Your task to perform on an android device: toggle wifi Image 0: 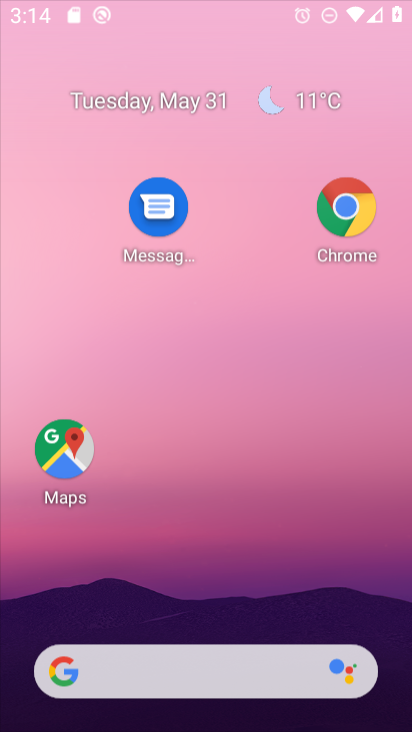
Step 0: click (234, 32)
Your task to perform on an android device: toggle wifi Image 1: 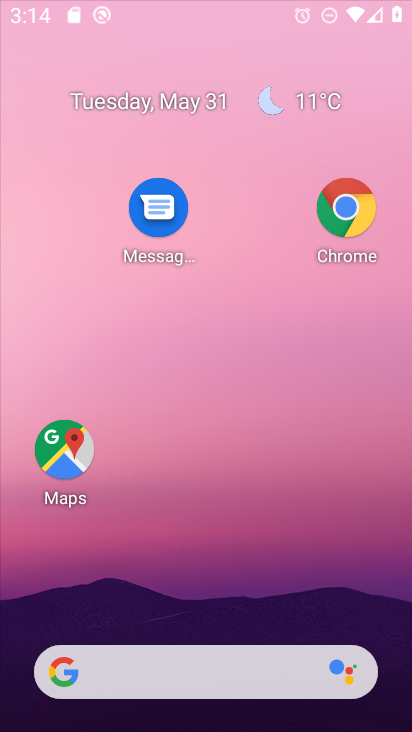
Step 1: drag from (174, 567) to (198, 44)
Your task to perform on an android device: toggle wifi Image 2: 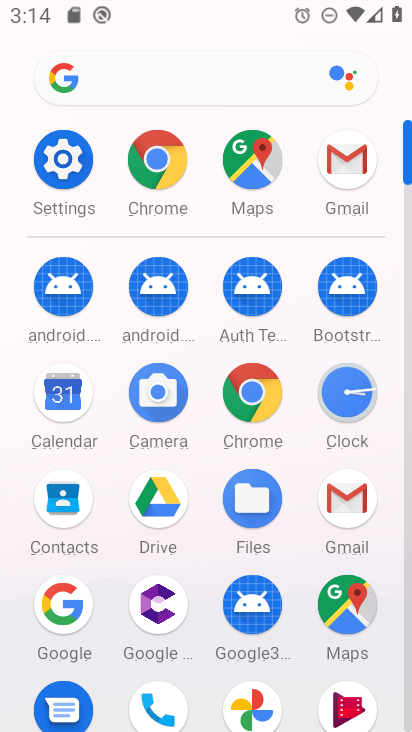
Step 2: click (69, 160)
Your task to perform on an android device: toggle wifi Image 3: 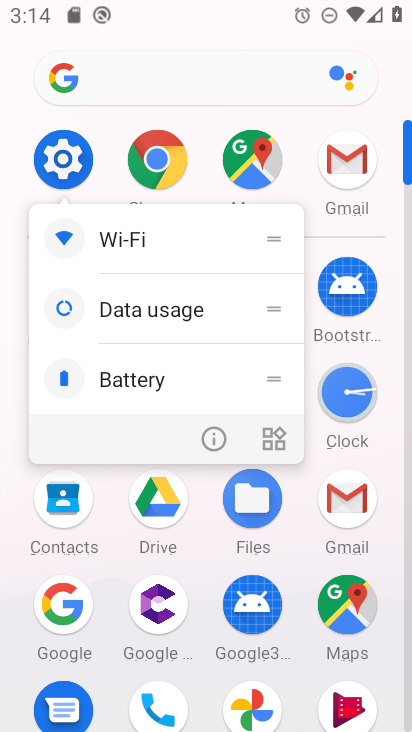
Step 3: click (224, 433)
Your task to perform on an android device: toggle wifi Image 4: 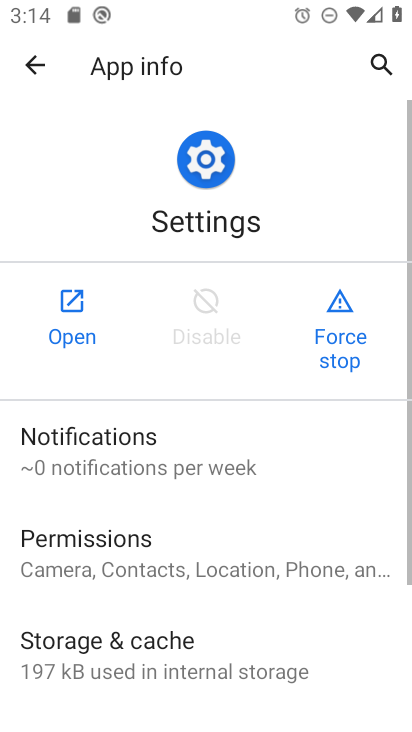
Step 4: click (107, 289)
Your task to perform on an android device: toggle wifi Image 5: 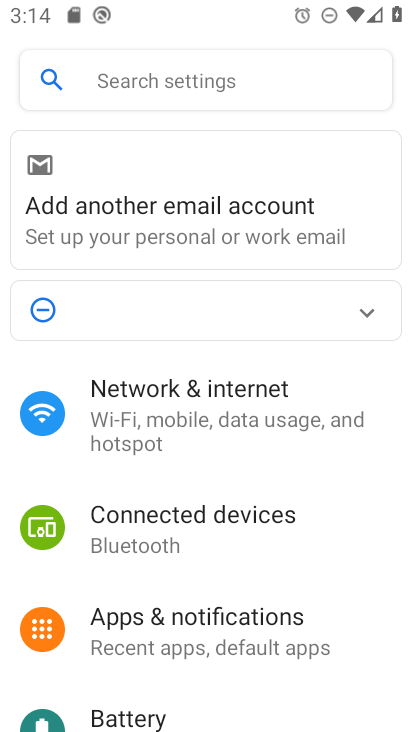
Step 5: click (161, 422)
Your task to perform on an android device: toggle wifi Image 6: 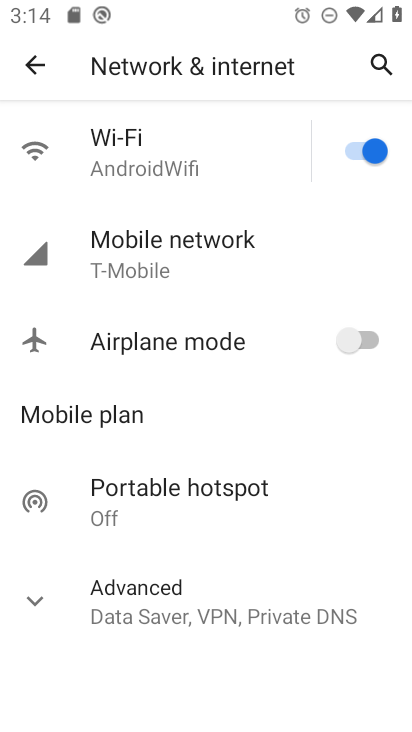
Step 6: click (349, 165)
Your task to perform on an android device: toggle wifi Image 7: 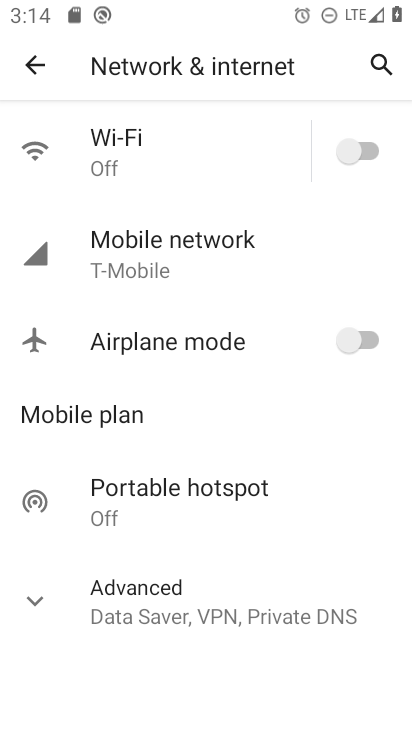
Step 7: task complete